Your task to perform on an android device: Open settings Image 0: 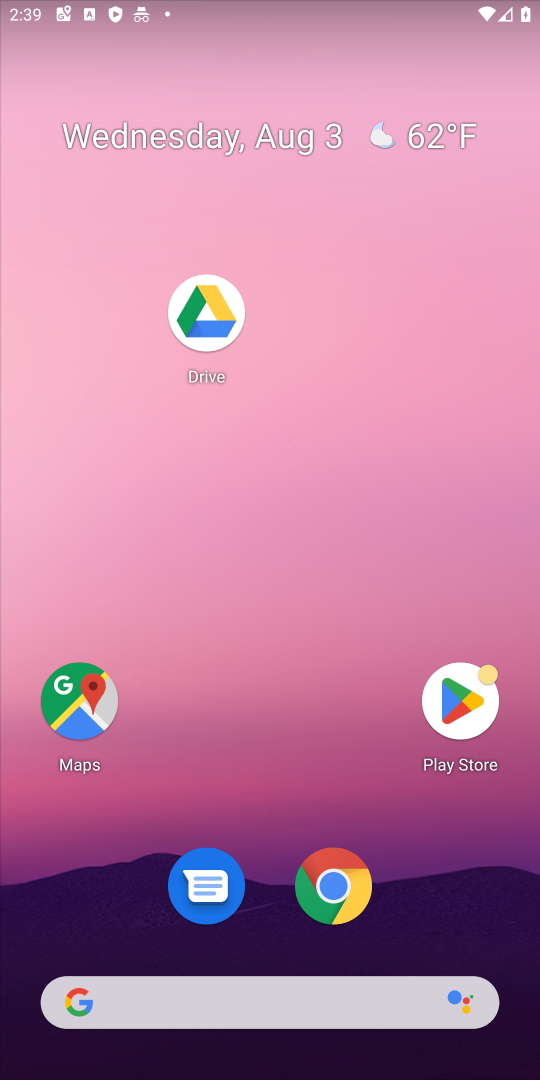
Step 0: press home button
Your task to perform on an android device: Open settings Image 1: 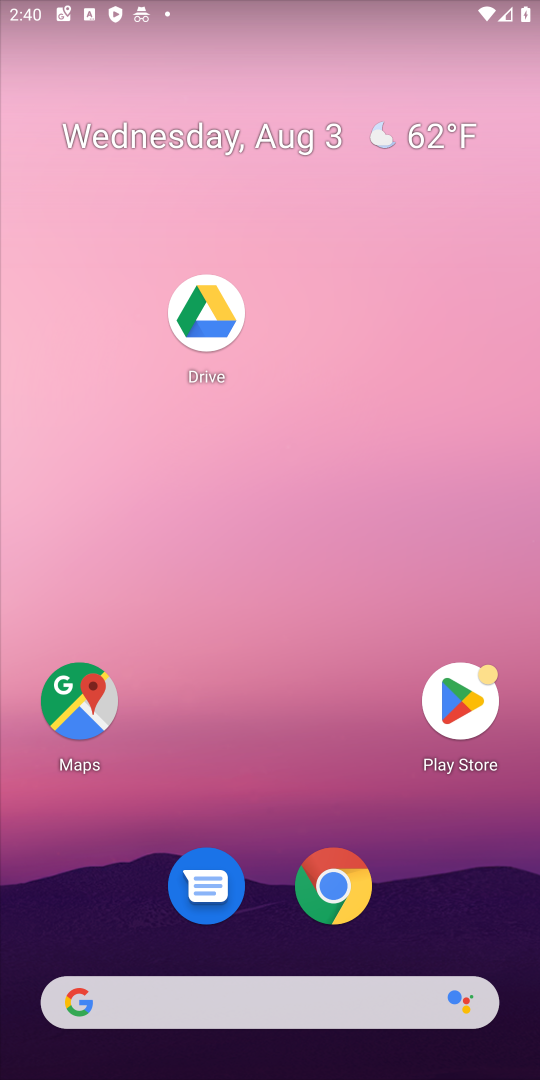
Step 1: drag from (408, 990) to (285, 1)
Your task to perform on an android device: Open settings Image 2: 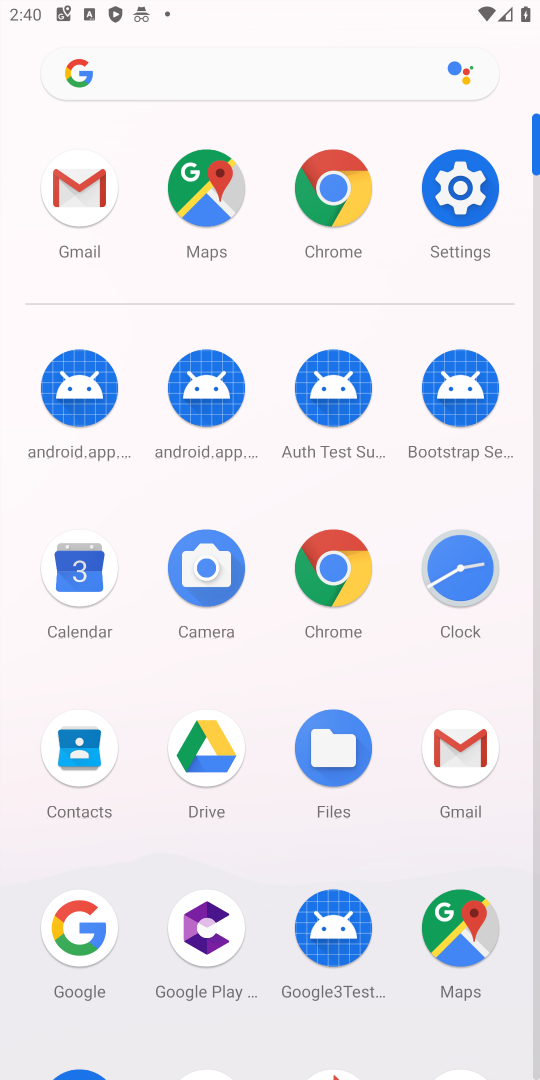
Step 2: click (477, 174)
Your task to perform on an android device: Open settings Image 3: 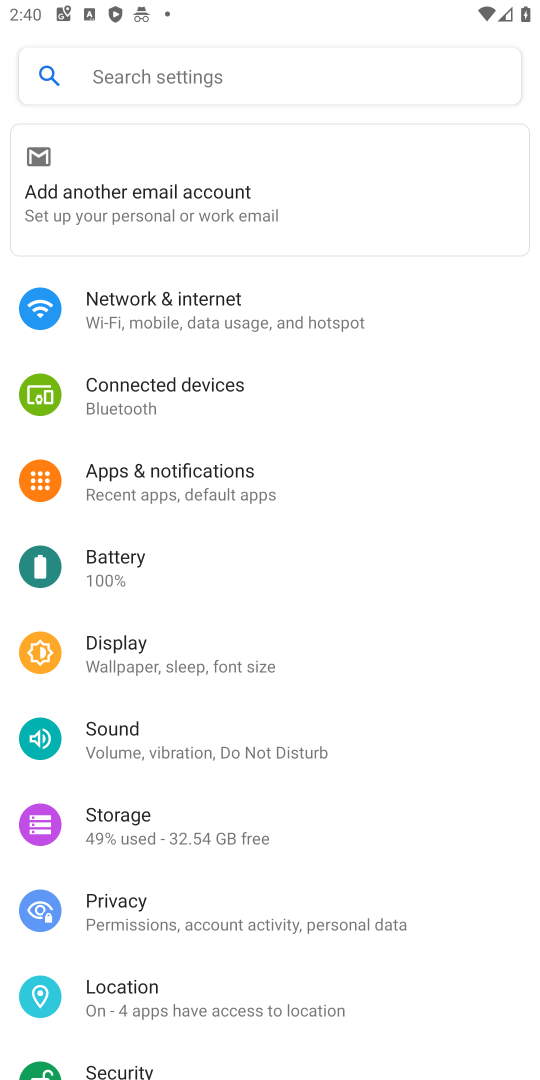
Step 3: task complete